Your task to perform on an android device: read, delete, or share a saved page in the chrome app Image 0: 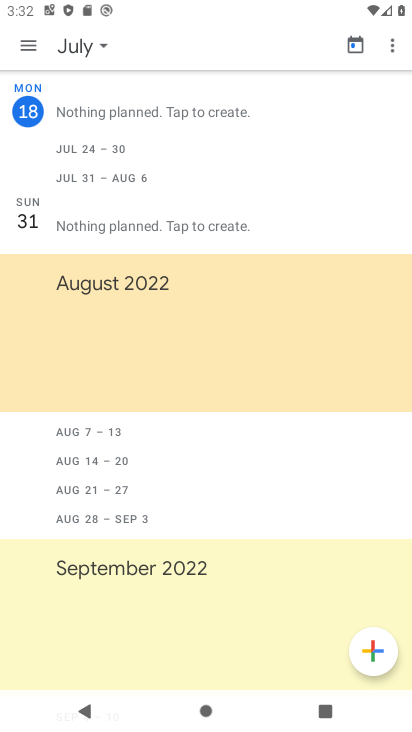
Step 0: press back button
Your task to perform on an android device: read, delete, or share a saved page in the chrome app Image 1: 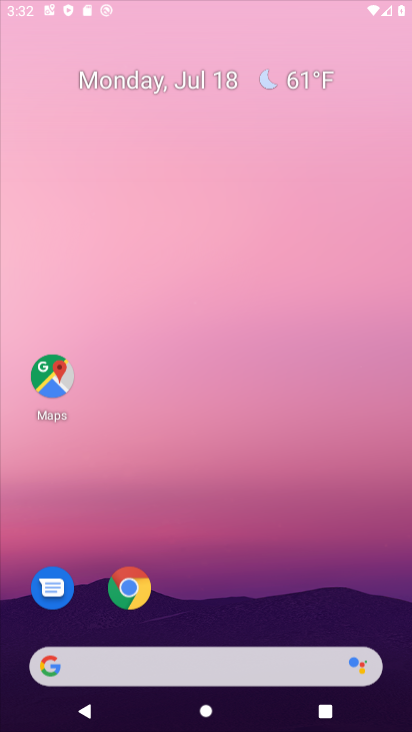
Step 1: press home button
Your task to perform on an android device: read, delete, or share a saved page in the chrome app Image 2: 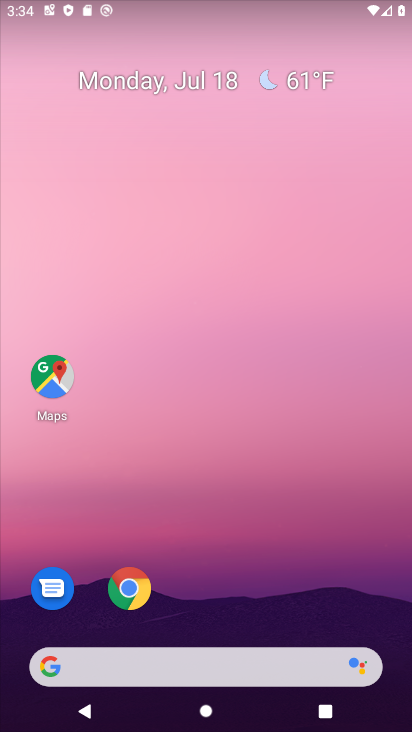
Step 2: click (134, 610)
Your task to perform on an android device: read, delete, or share a saved page in the chrome app Image 3: 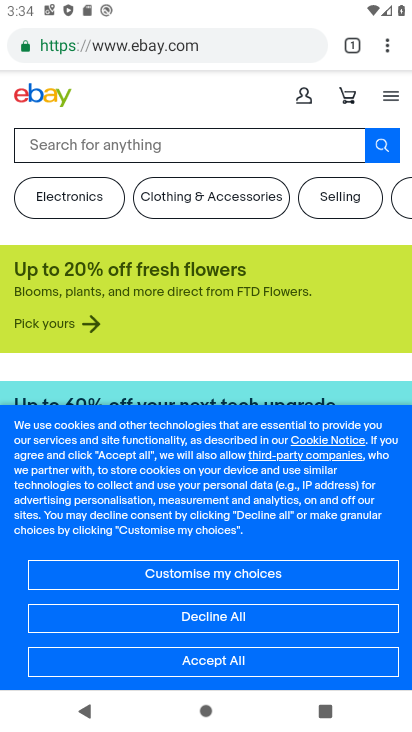
Step 3: click (402, 54)
Your task to perform on an android device: read, delete, or share a saved page in the chrome app Image 4: 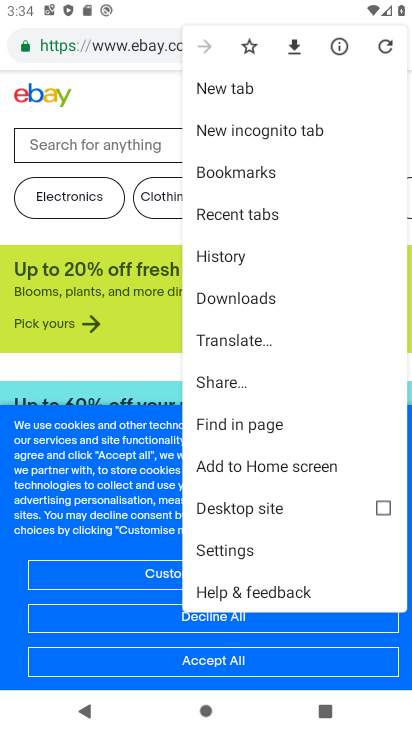
Step 4: click (258, 292)
Your task to perform on an android device: read, delete, or share a saved page in the chrome app Image 5: 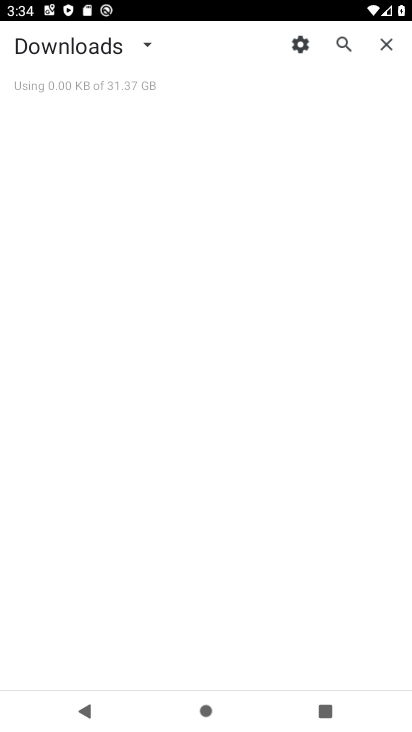
Step 5: task complete